Your task to perform on an android device: Search for sushi restaurants on Maps Image 0: 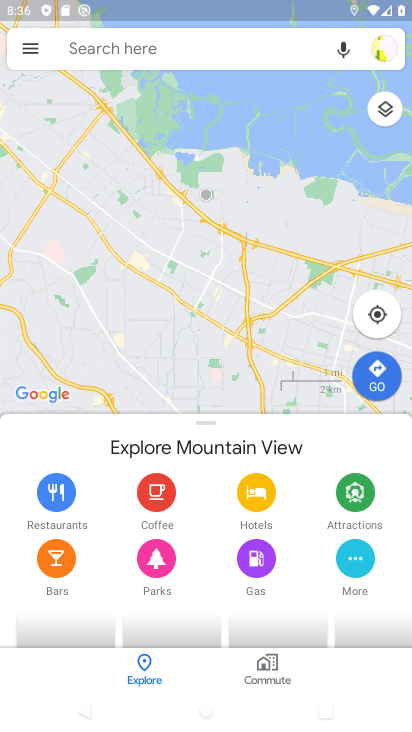
Step 0: press home button
Your task to perform on an android device: Search for sushi restaurants on Maps Image 1: 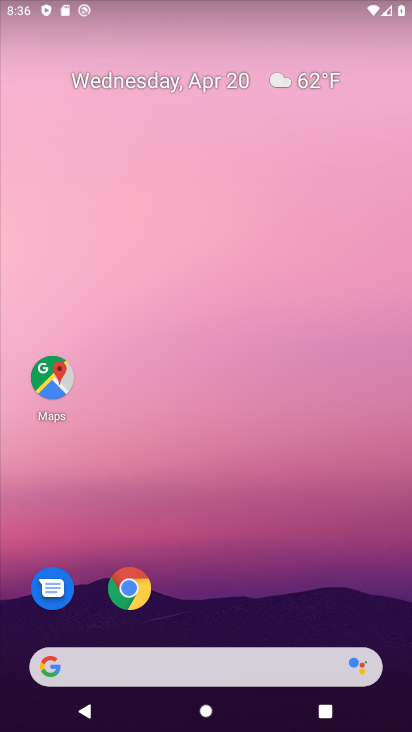
Step 1: click (50, 374)
Your task to perform on an android device: Search for sushi restaurants on Maps Image 2: 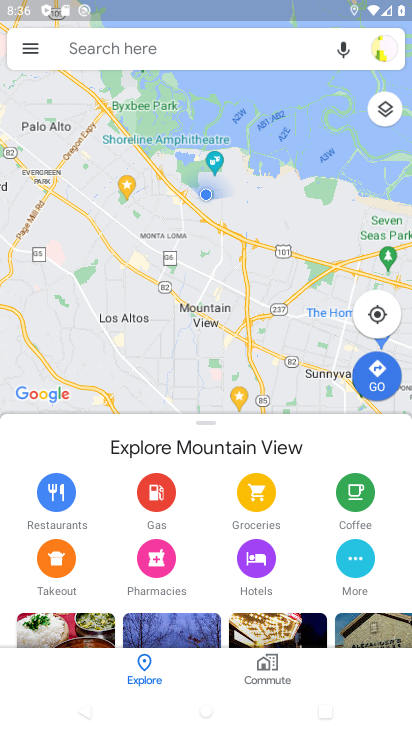
Step 2: click (152, 45)
Your task to perform on an android device: Search for sushi restaurants on Maps Image 3: 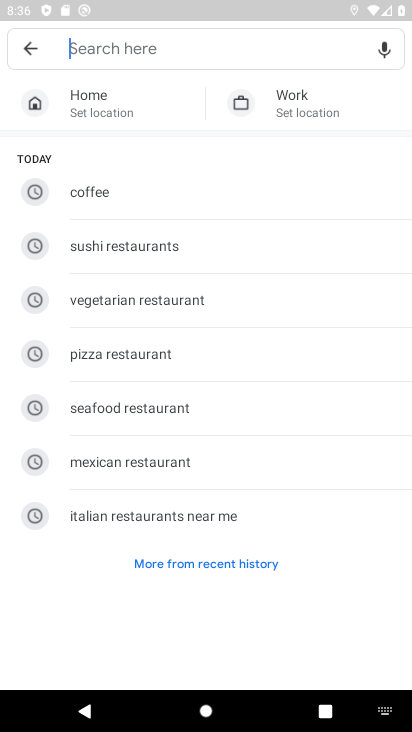
Step 3: click (139, 247)
Your task to perform on an android device: Search for sushi restaurants on Maps Image 4: 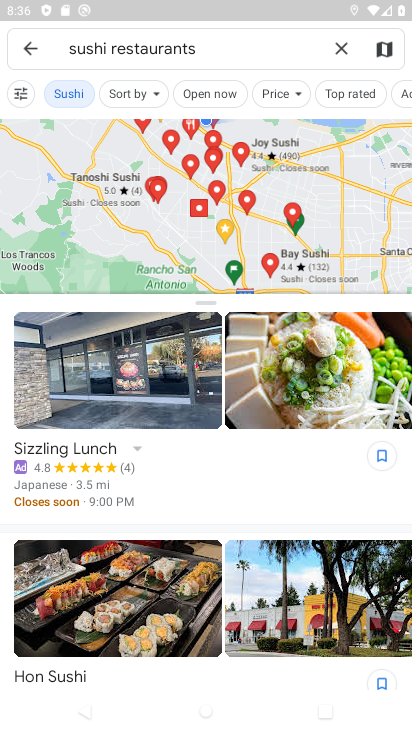
Step 4: task complete